Your task to perform on an android device: Open the Play Movies app and select the watchlist tab. Image 0: 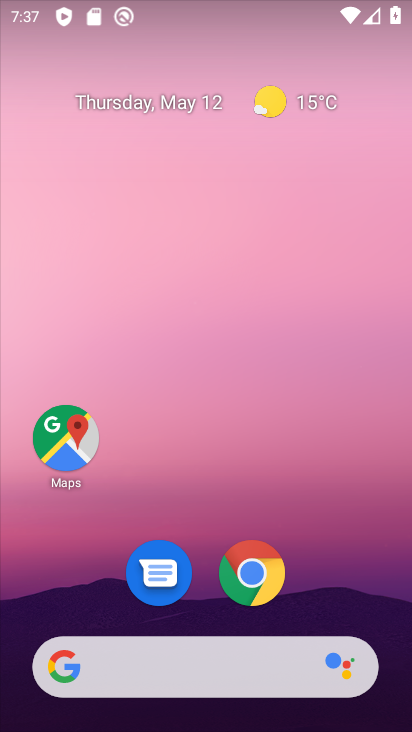
Step 0: drag from (306, 585) to (117, 30)
Your task to perform on an android device: Open the Play Movies app and select the watchlist tab. Image 1: 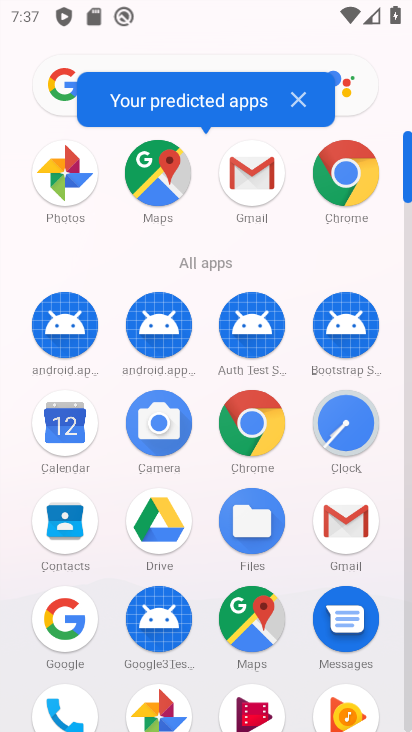
Step 1: drag from (199, 671) to (146, 247)
Your task to perform on an android device: Open the Play Movies app and select the watchlist tab. Image 2: 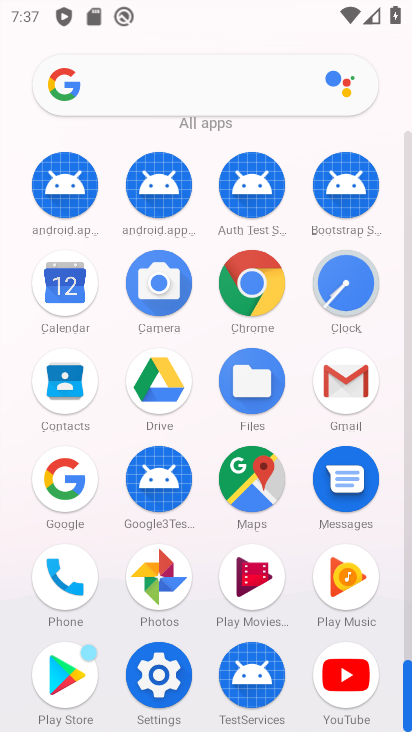
Step 2: click (254, 566)
Your task to perform on an android device: Open the Play Movies app and select the watchlist tab. Image 3: 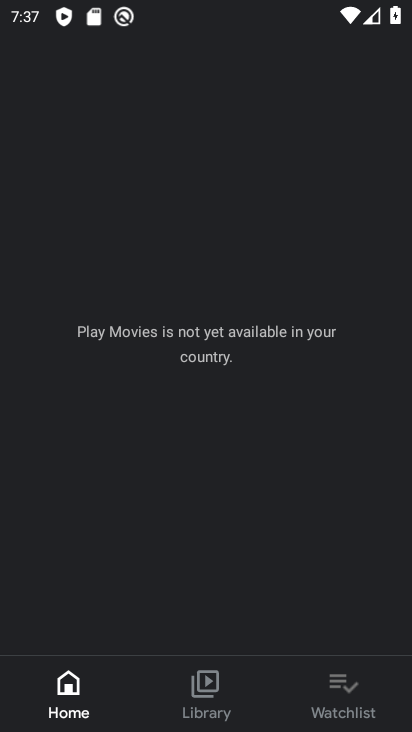
Step 3: click (336, 695)
Your task to perform on an android device: Open the Play Movies app and select the watchlist tab. Image 4: 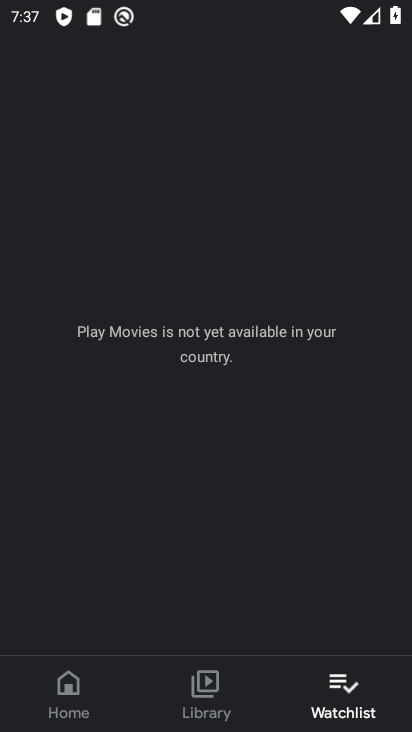
Step 4: task complete